Your task to perform on an android device: turn on airplane mode Image 0: 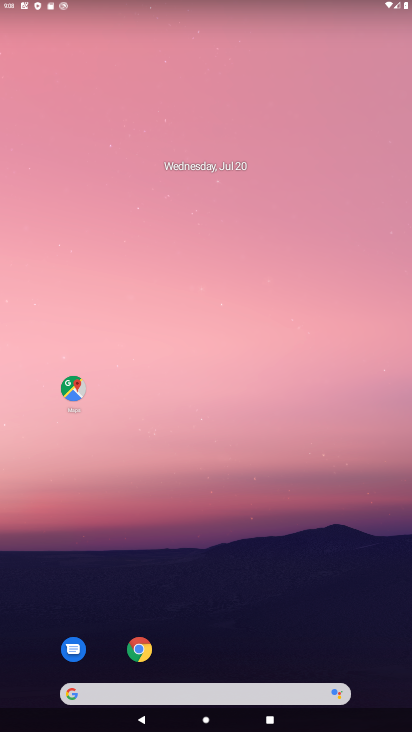
Step 0: drag from (288, 634) to (190, 75)
Your task to perform on an android device: turn on airplane mode Image 1: 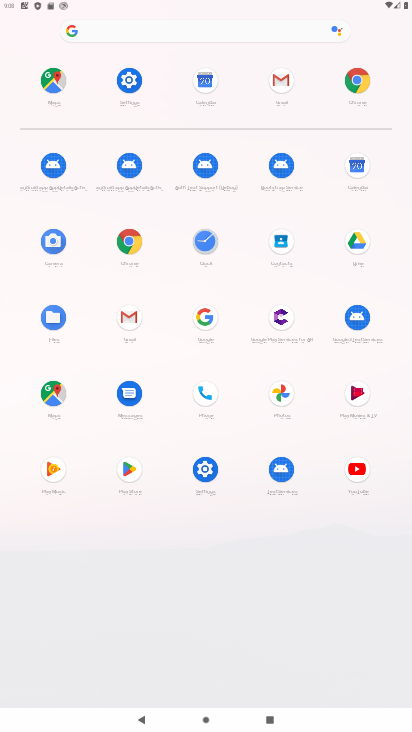
Step 1: click (127, 94)
Your task to perform on an android device: turn on airplane mode Image 2: 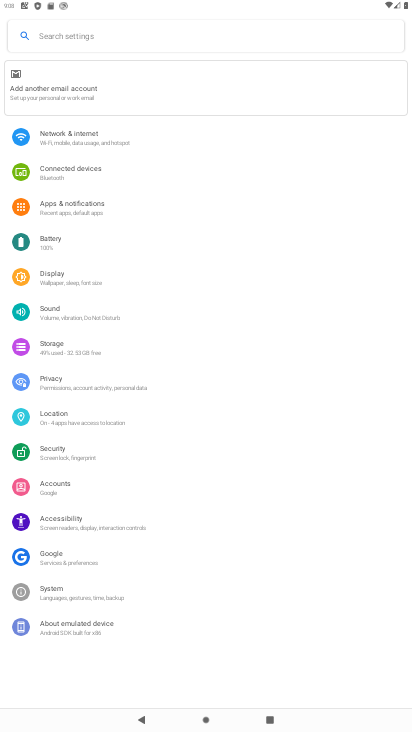
Step 2: click (132, 135)
Your task to perform on an android device: turn on airplane mode Image 3: 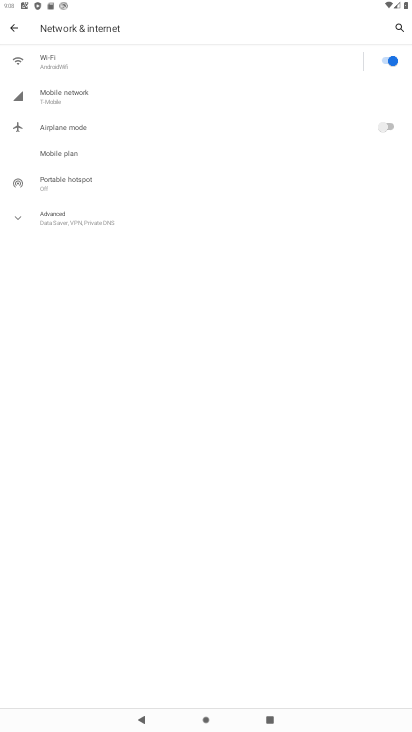
Step 3: task complete